Your task to perform on an android device: turn off smart reply in the gmail app Image 0: 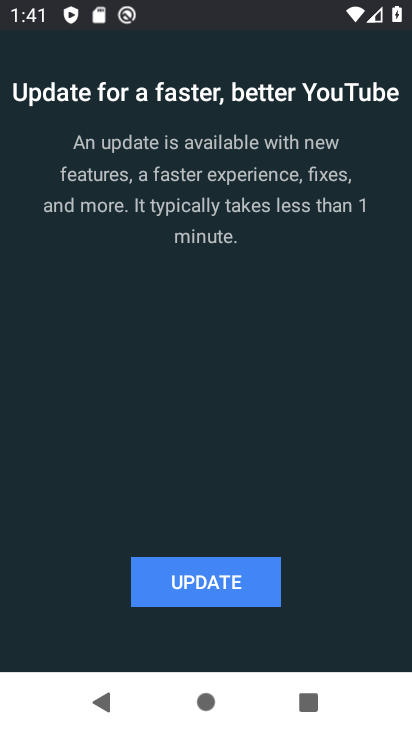
Step 0: press back button
Your task to perform on an android device: turn off smart reply in the gmail app Image 1: 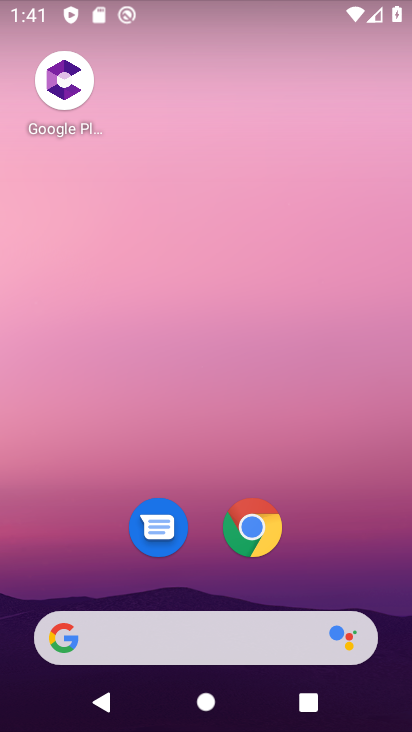
Step 1: drag from (65, 615) to (199, 2)
Your task to perform on an android device: turn off smart reply in the gmail app Image 2: 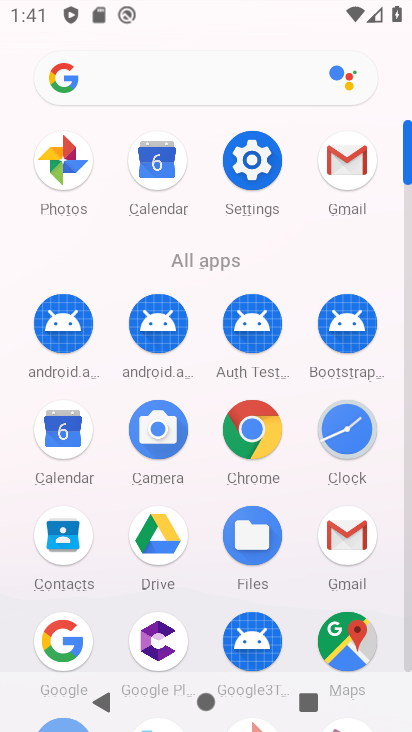
Step 2: click (340, 160)
Your task to perform on an android device: turn off smart reply in the gmail app Image 3: 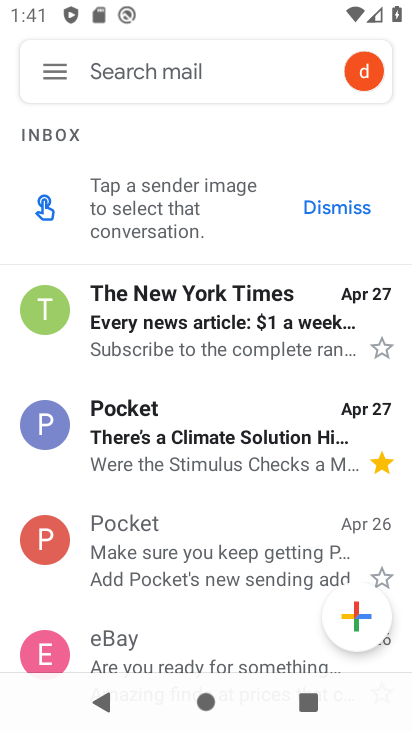
Step 3: click (67, 80)
Your task to perform on an android device: turn off smart reply in the gmail app Image 4: 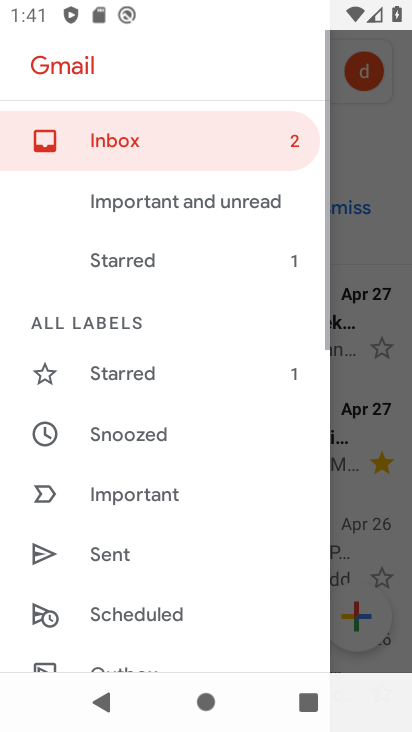
Step 4: drag from (128, 642) to (182, 208)
Your task to perform on an android device: turn off smart reply in the gmail app Image 5: 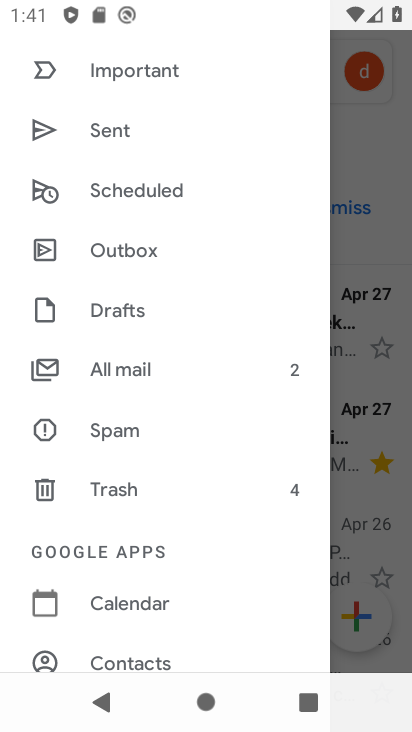
Step 5: drag from (109, 604) to (183, 223)
Your task to perform on an android device: turn off smart reply in the gmail app Image 6: 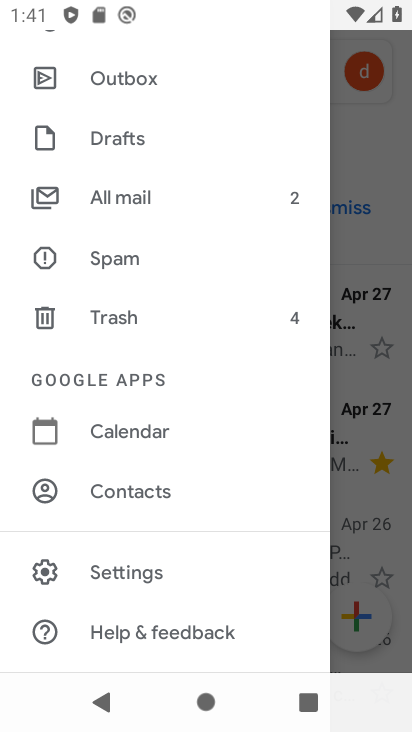
Step 6: click (129, 575)
Your task to perform on an android device: turn off smart reply in the gmail app Image 7: 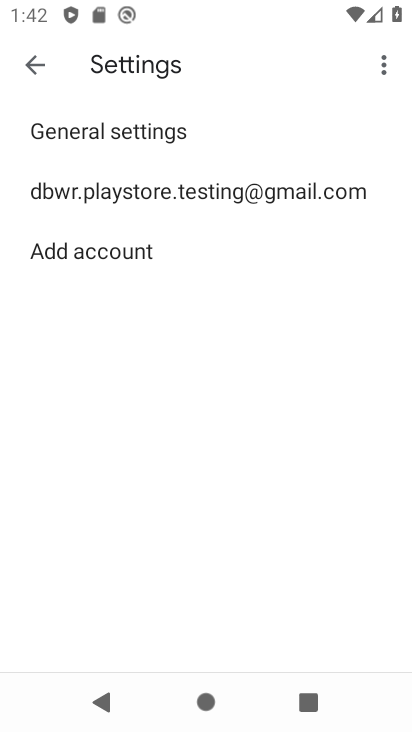
Step 7: click (213, 180)
Your task to perform on an android device: turn off smart reply in the gmail app Image 8: 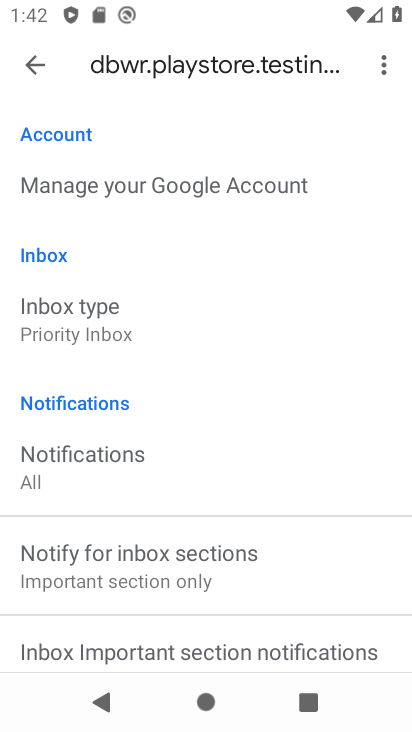
Step 8: drag from (118, 621) to (235, 150)
Your task to perform on an android device: turn off smart reply in the gmail app Image 9: 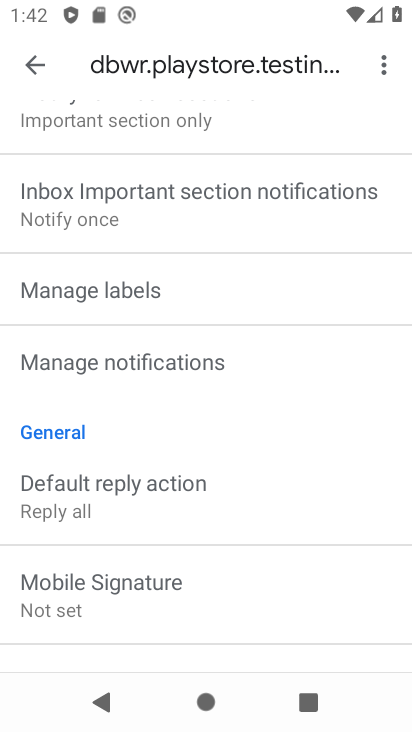
Step 9: drag from (104, 613) to (230, 230)
Your task to perform on an android device: turn off smart reply in the gmail app Image 10: 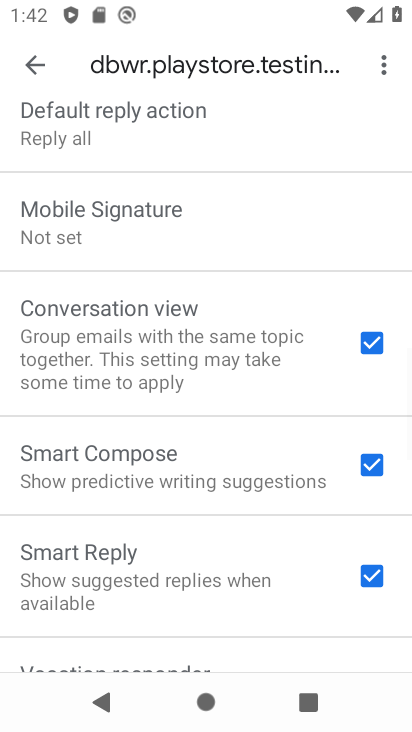
Step 10: drag from (172, 593) to (222, 381)
Your task to perform on an android device: turn off smart reply in the gmail app Image 11: 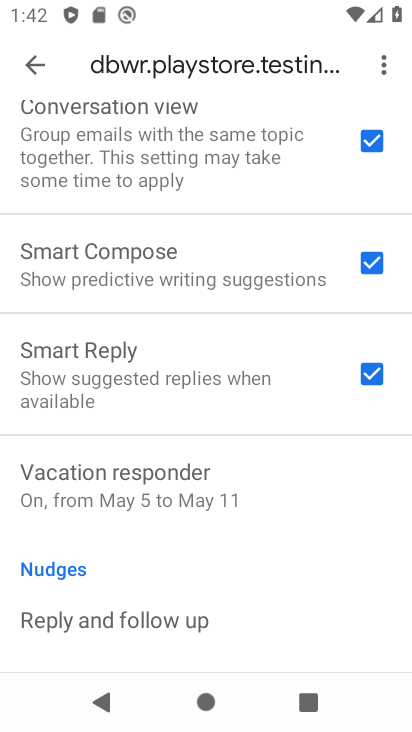
Step 11: click (373, 367)
Your task to perform on an android device: turn off smart reply in the gmail app Image 12: 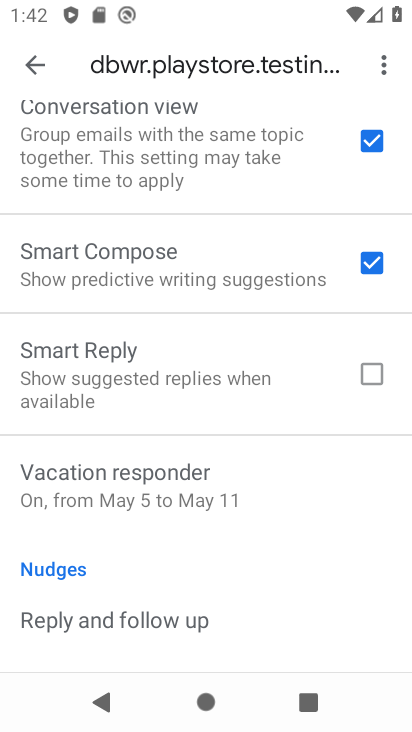
Step 12: task complete